Your task to perform on an android device: Find coffee shops on Maps Image 0: 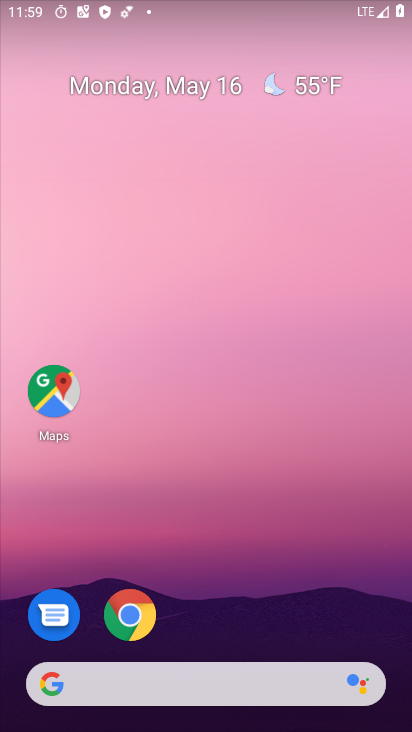
Step 0: drag from (252, 574) to (263, 211)
Your task to perform on an android device: Find coffee shops on Maps Image 1: 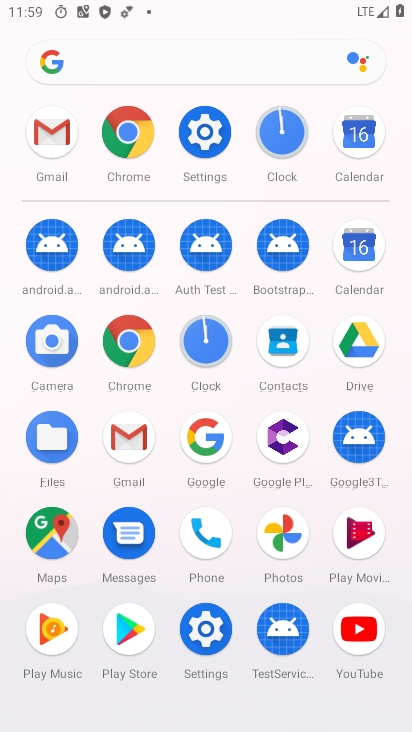
Step 1: click (63, 529)
Your task to perform on an android device: Find coffee shops on Maps Image 2: 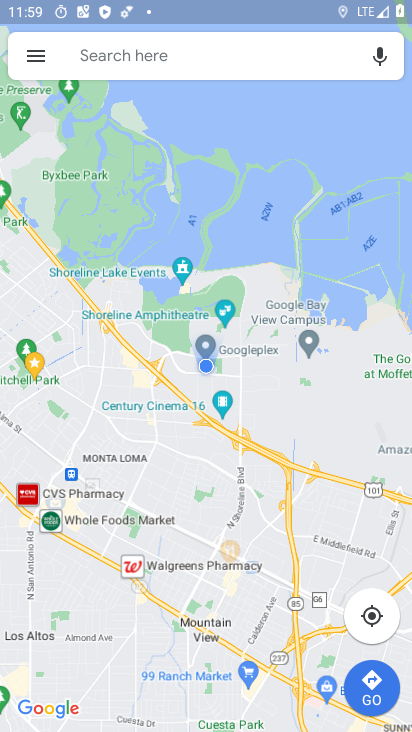
Step 2: click (172, 55)
Your task to perform on an android device: Find coffee shops on Maps Image 3: 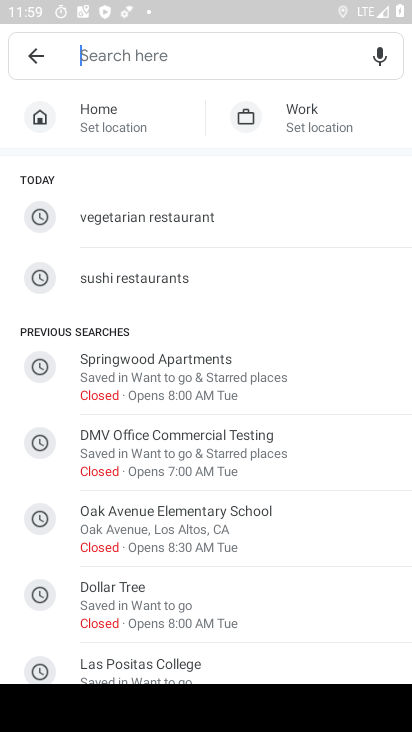
Step 3: type " coffee shops"
Your task to perform on an android device: Find coffee shops on Maps Image 4: 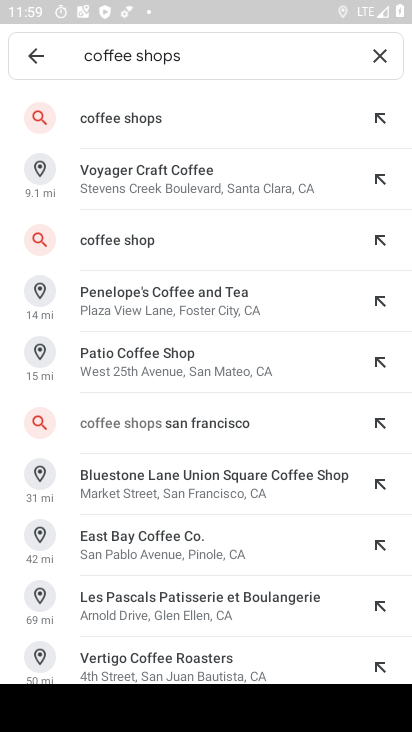
Step 4: click (140, 105)
Your task to perform on an android device: Find coffee shops on Maps Image 5: 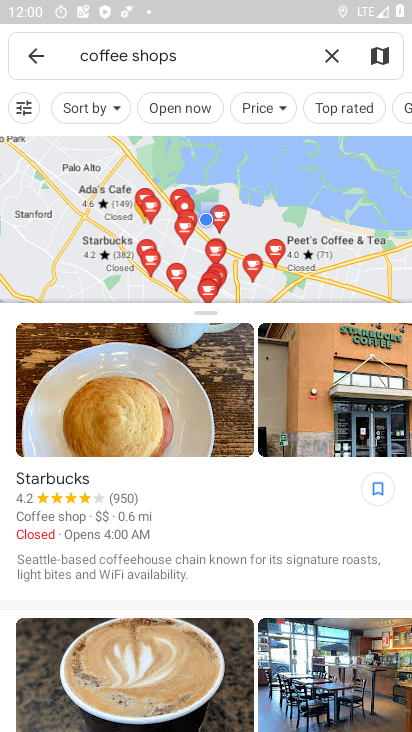
Step 5: task complete